Your task to perform on an android device: set the stopwatch Image 0: 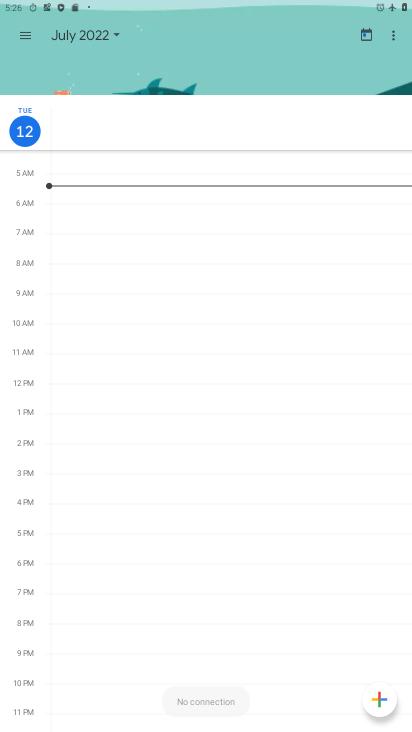
Step 0: press home button
Your task to perform on an android device: set the stopwatch Image 1: 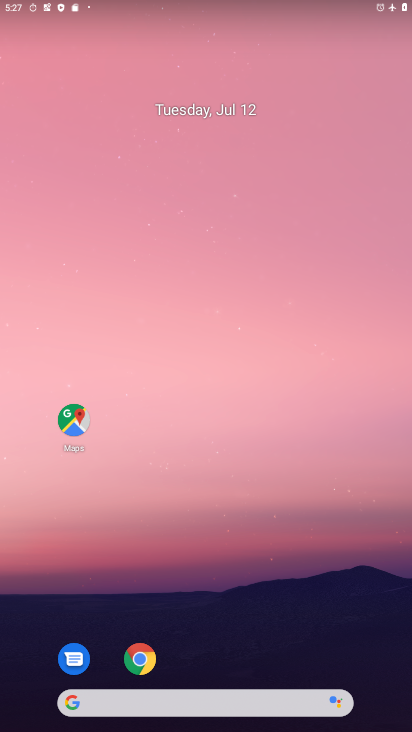
Step 1: drag from (239, 443) to (238, 258)
Your task to perform on an android device: set the stopwatch Image 2: 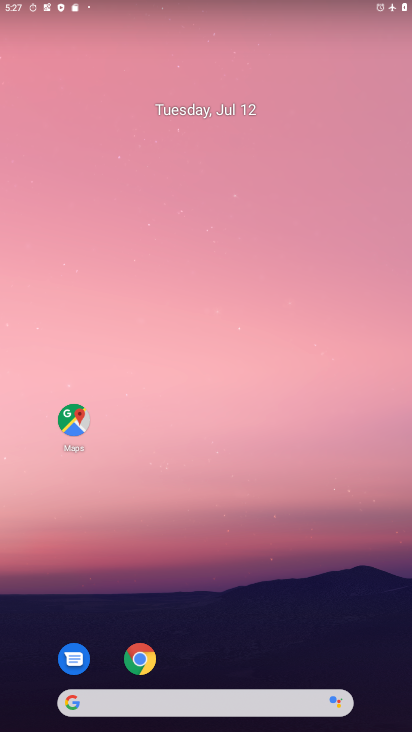
Step 2: drag from (208, 627) to (207, 48)
Your task to perform on an android device: set the stopwatch Image 3: 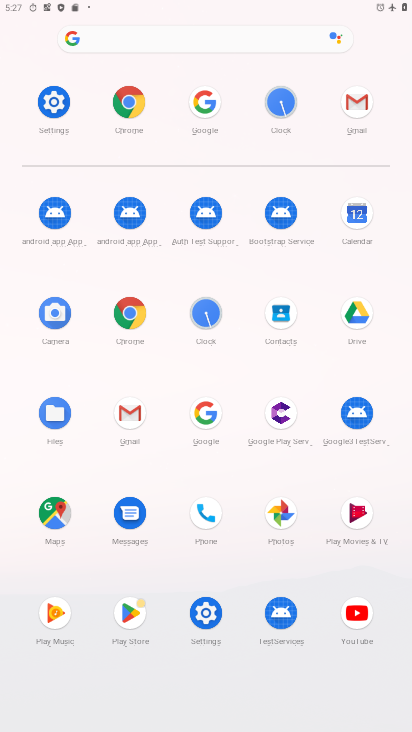
Step 3: click (275, 98)
Your task to perform on an android device: set the stopwatch Image 4: 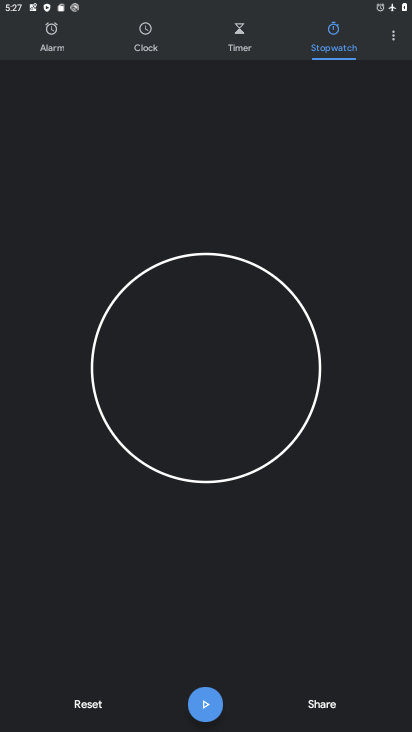
Step 4: click (203, 697)
Your task to perform on an android device: set the stopwatch Image 5: 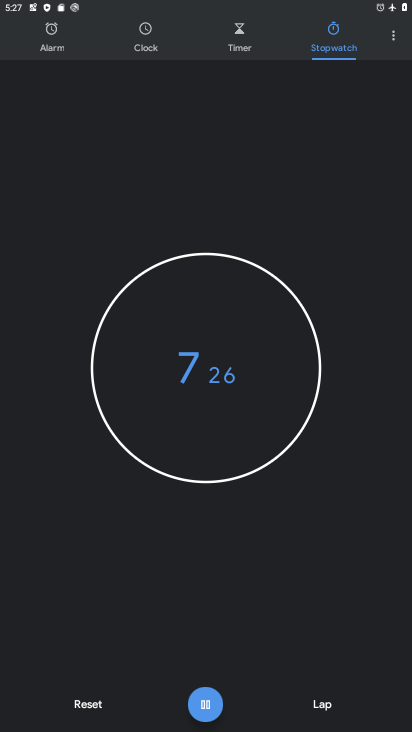
Step 5: click (203, 697)
Your task to perform on an android device: set the stopwatch Image 6: 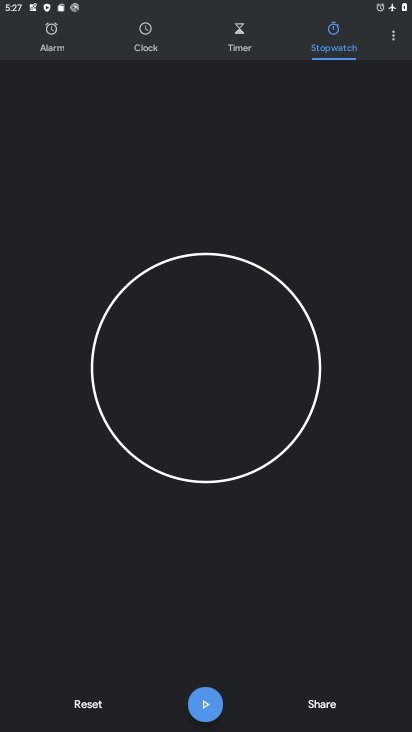
Step 6: task complete